Your task to perform on an android device: set the timer Image 0: 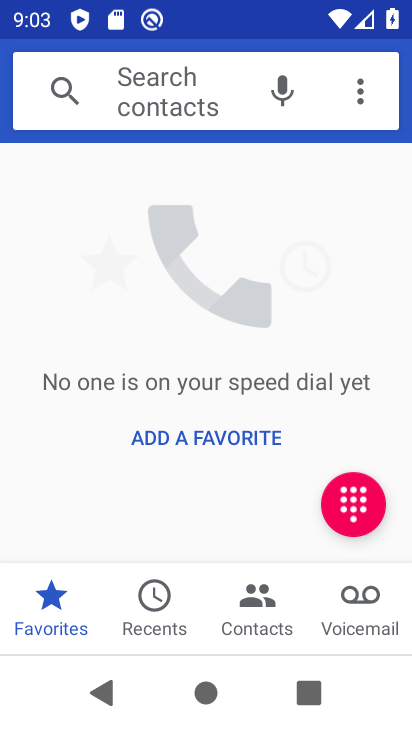
Step 0: press home button
Your task to perform on an android device: set the timer Image 1: 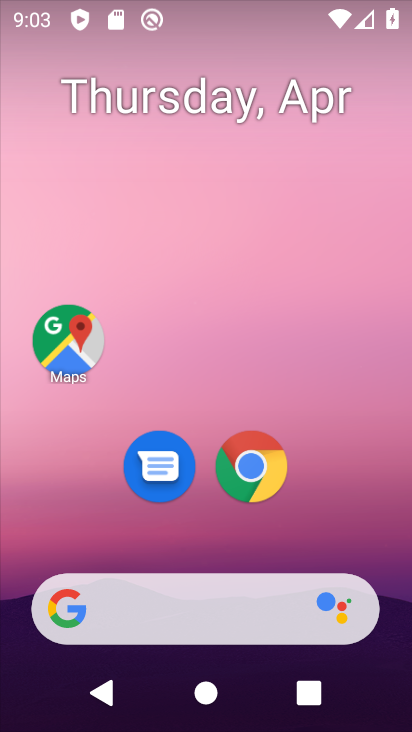
Step 1: drag from (327, 525) to (341, 90)
Your task to perform on an android device: set the timer Image 2: 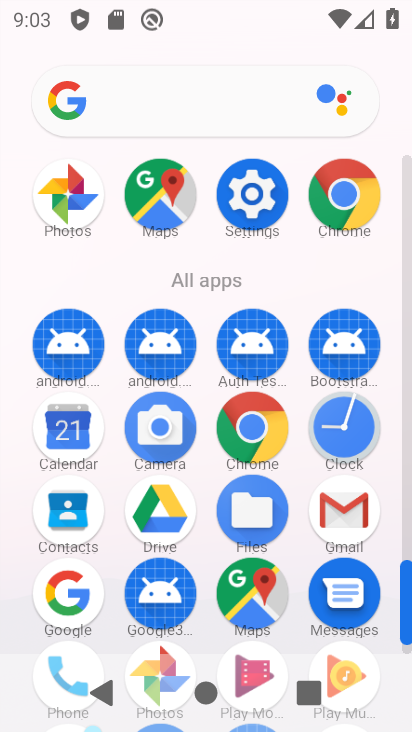
Step 2: click (336, 430)
Your task to perform on an android device: set the timer Image 3: 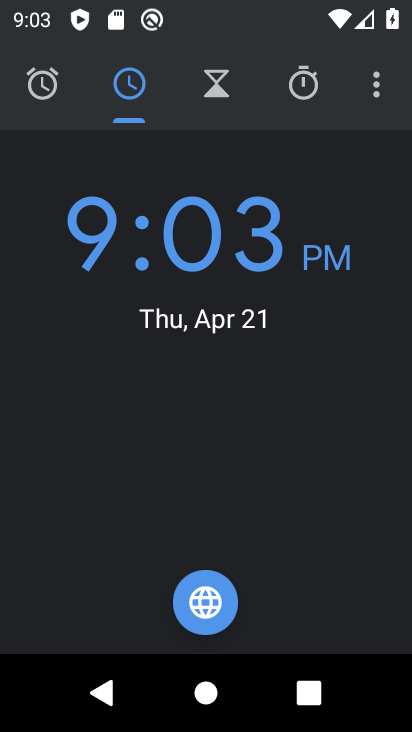
Step 3: click (219, 86)
Your task to perform on an android device: set the timer Image 4: 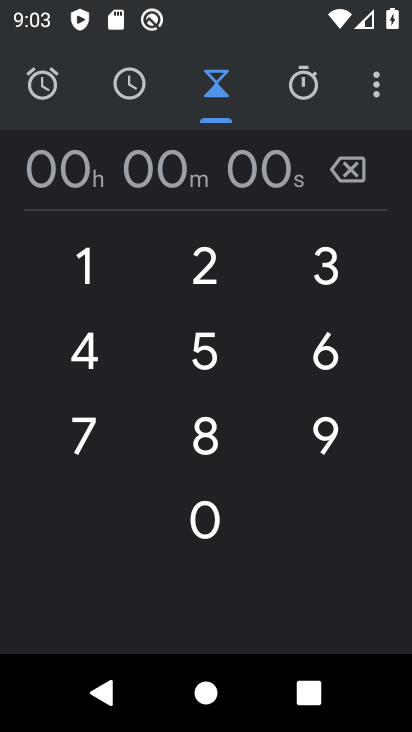
Step 4: click (88, 265)
Your task to perform on an android device: set the timer Image 5: 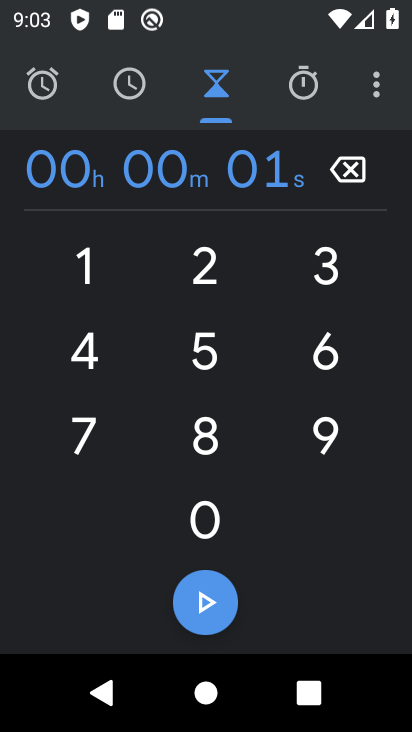
Step 5: click (88, 265)
Your task to perform on an android device: set the timer Image 6: 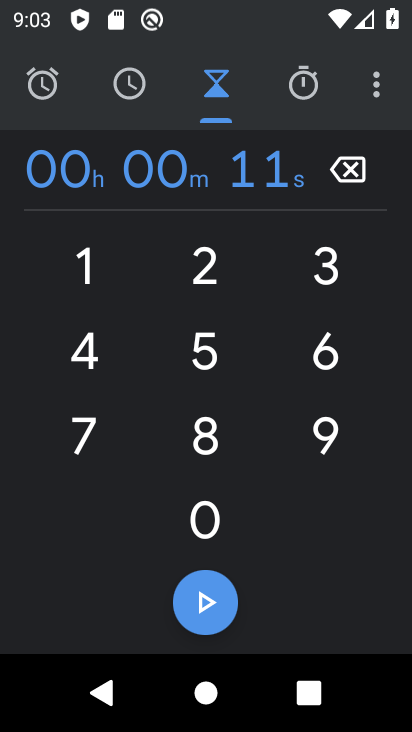
Step 6: task complete